Your task to perform on an android device: turn off improve location accuracy Image 0: 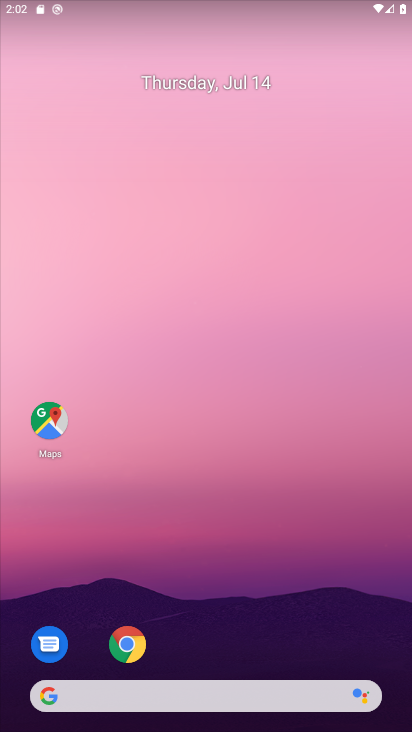
Step 0: drag from (333, 645) to (207, 149)
Your task to perform on an android device: turn off improve location accuracy Image 1: 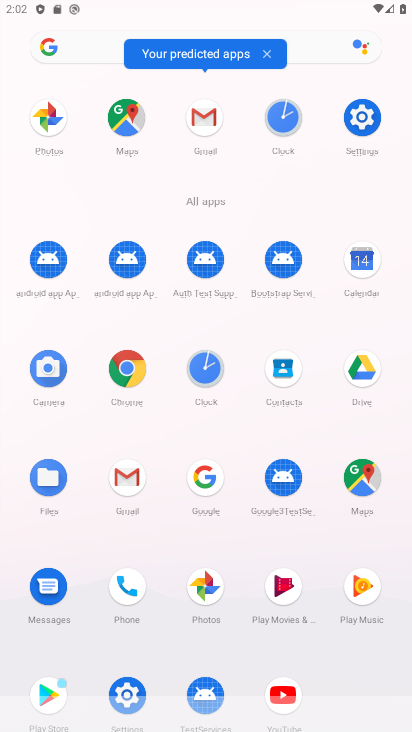
Step 1: click (365, 118)
Your task to perform on an android device: turn off improve location accuracy Image 2: 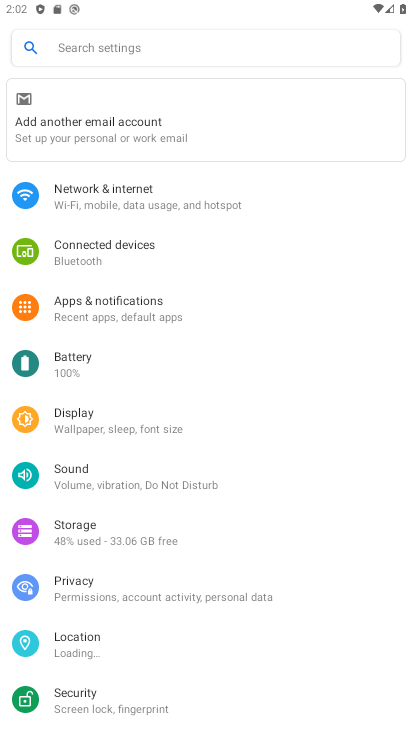
Step 2: click (127, 646)
Your task to perform on an android device: turn off improve location accuracy Image 3: 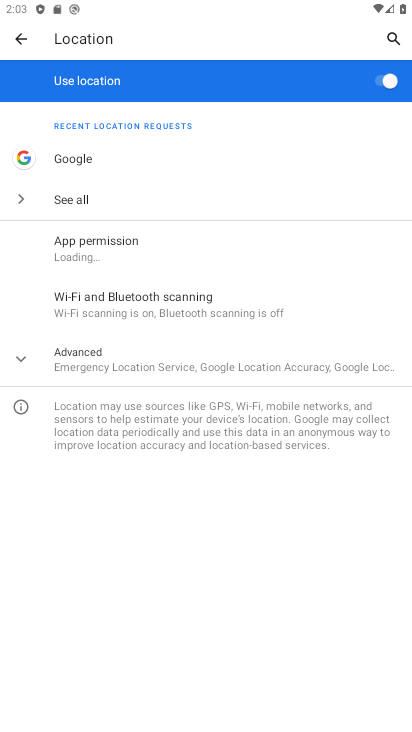
Step 3: click (191, 359)
Your task to perform on an android device: turn off improve location accuracy Image 4: 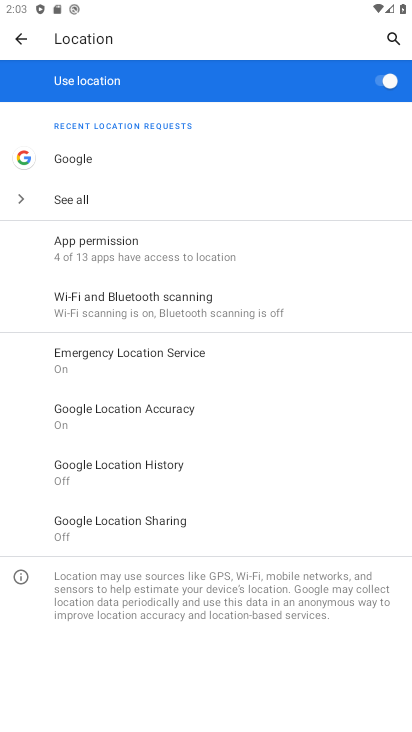
Step 4: click (198, 407)
Your task to perform on an android device: turn off improve location accuracy Image 5: 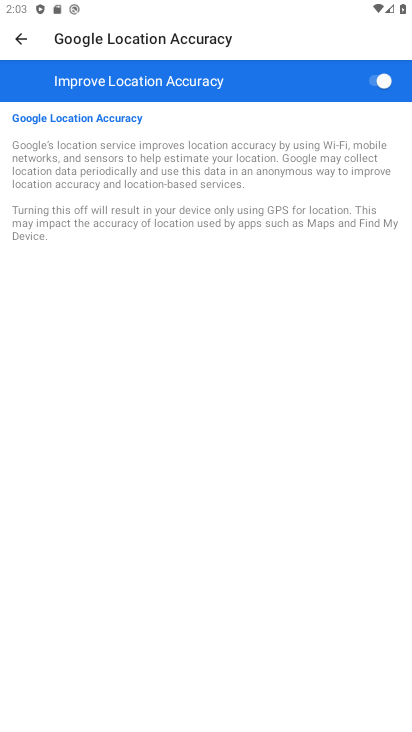
Step 5: click (387, 77)
Your task to perform on an android device: turn off improve location accuracy Image 6: 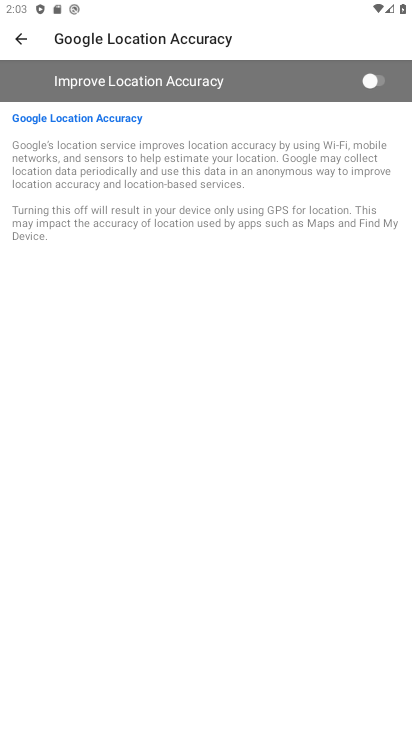
Step 6: task complete